Your task to perform on an android device: toggle translation in the chrome app Image 0: 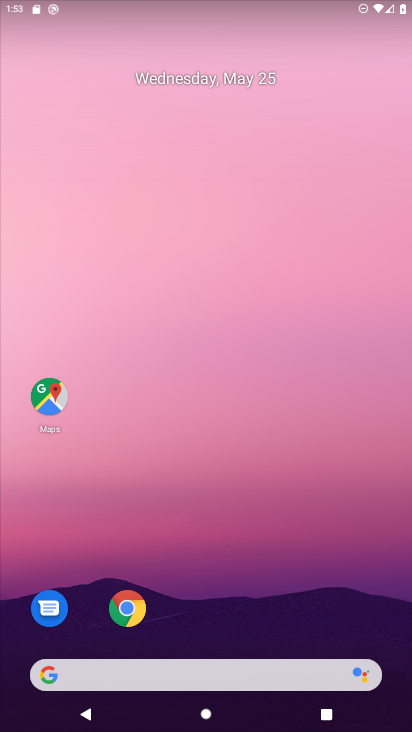
Step 0: click (132, 610)
Your task to perform on an android device: toggle translation in the chrome app Image 1: 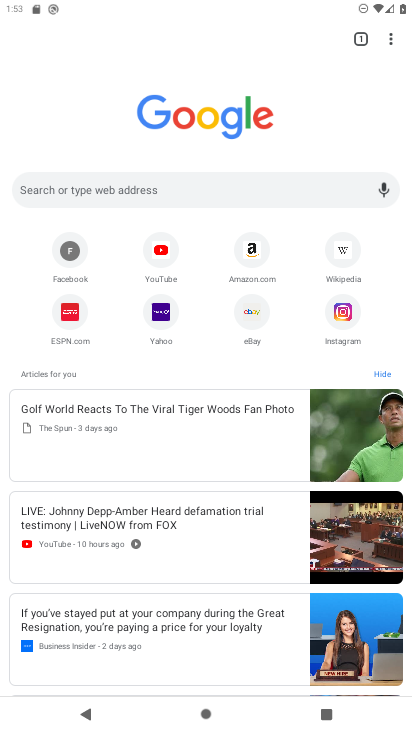
Step 1: click (392, 40)
Your task to perform on an android device: toggle translation in the chrome app Image 2: 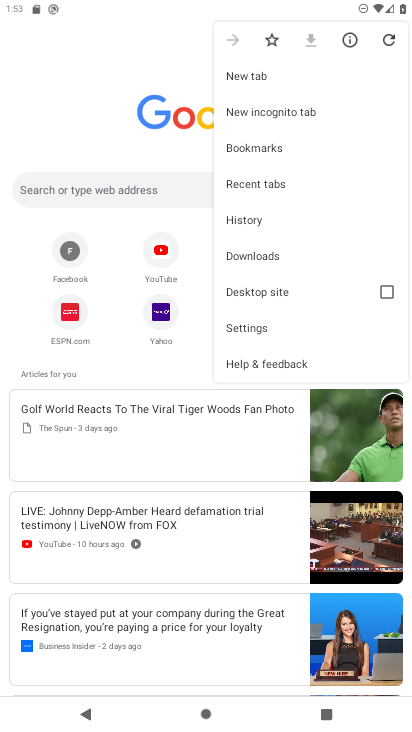
Step 2: click (248, 335)
Your task to perform on an android device: toggle translation in the chrome app Image 3: 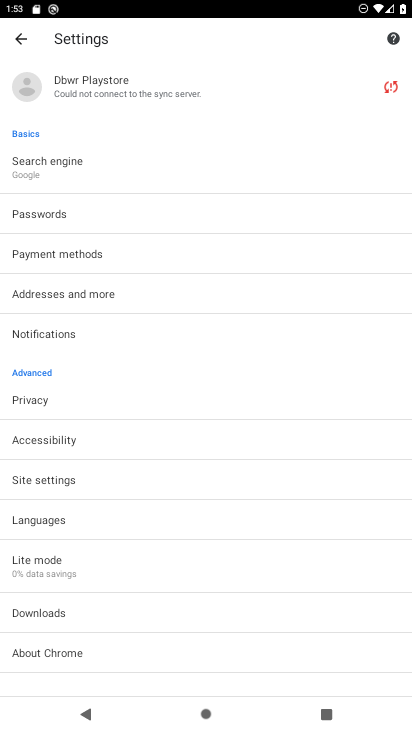
Step 3: click (52, 519)
Your task to perform on an android device: toggle translation in the chrome app Image 4: 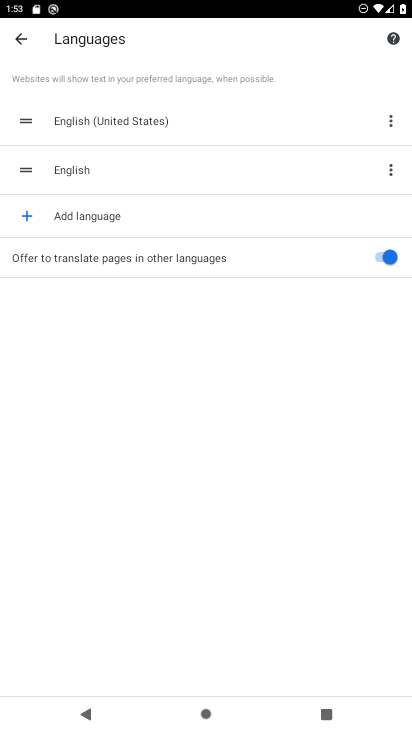
Step 4: click (380, 252)
Your task to perform on an android device: toggle translation in the chrome app Image 5: 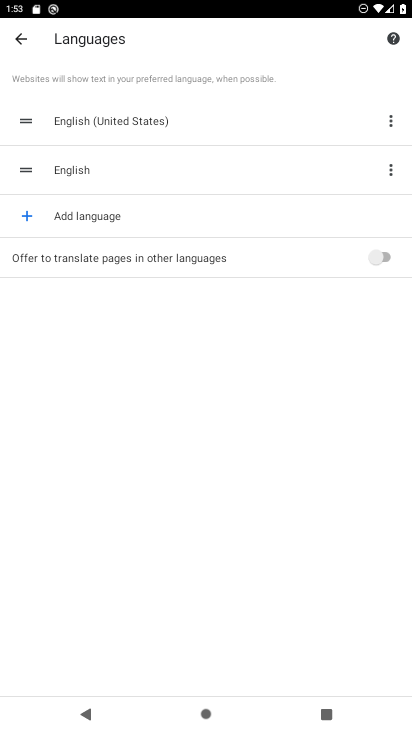
Step 5: task complete